Your task to perform on an android device: Go to Android settings Image 0: 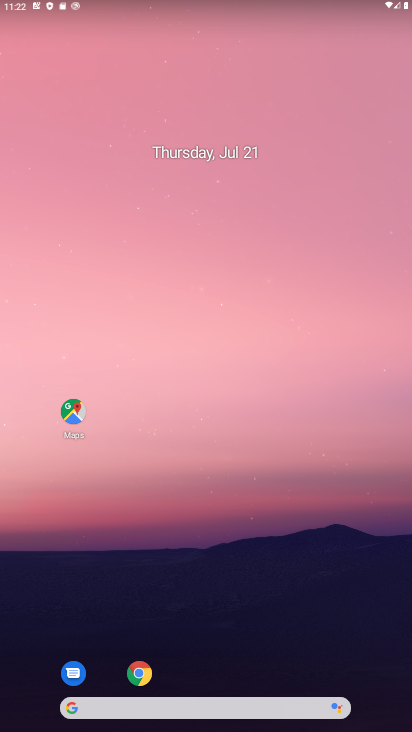
Step 0: drag from (227, 637) to (265, 186)
Your task to perform on an android device: Go to Android settings Image 1: 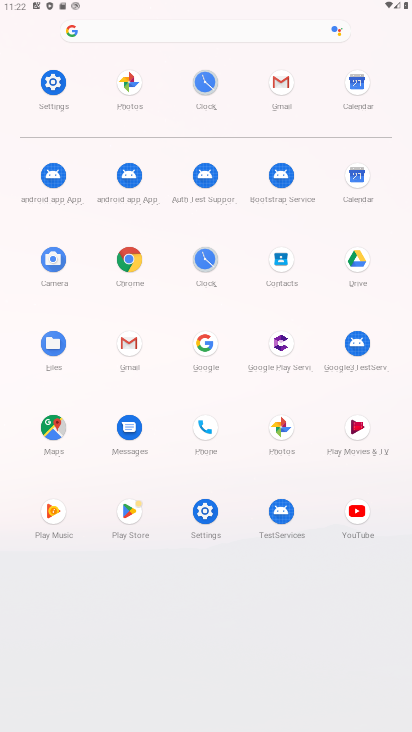
Step 1: click (71, 82)
Your task to perform on an android device: Go to Android settings Image 2: 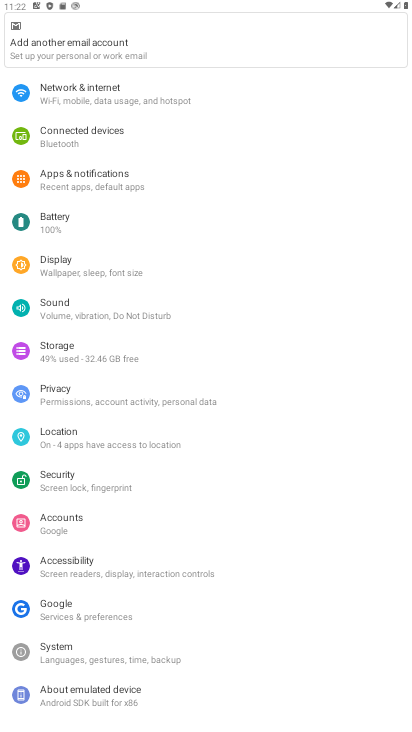
Step 2: task complete